Your task to perform on an android device: Go to location settings Image 0: 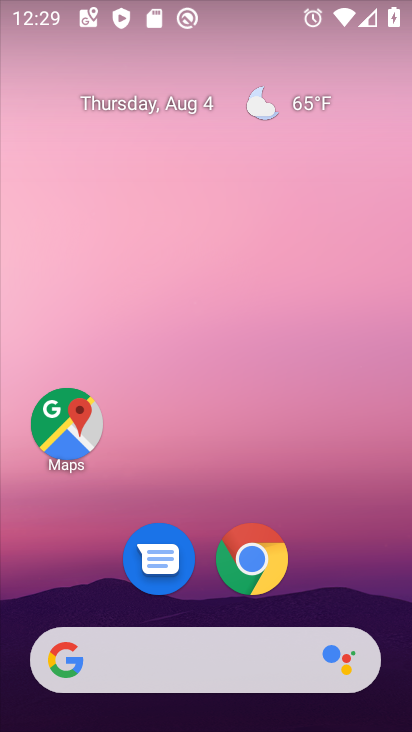
Step 0: drag from (206, 680) to (242, 166)
Your task to perform on an android device: Go to location settings Image 1: 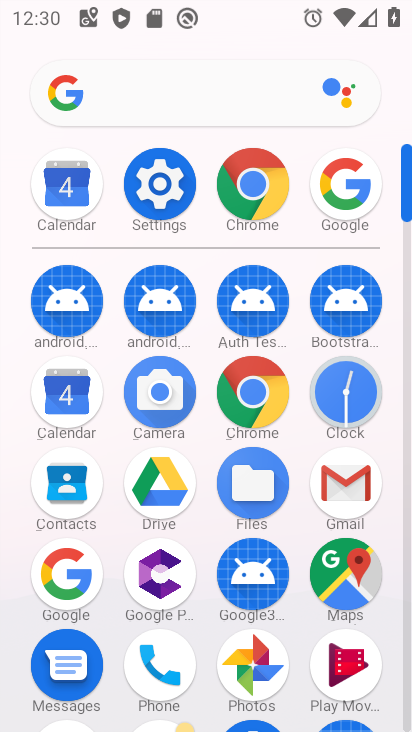
Step 1: click (159, 185)
Your task to perform on an android device: Go to location settings Image 2: 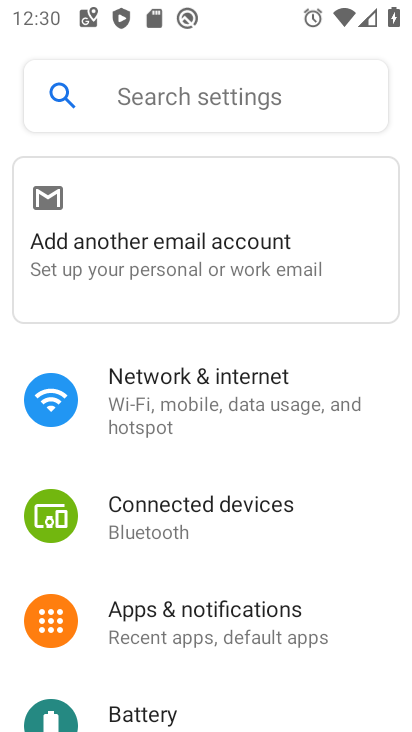
Step 2: drag from (146, 576) to (178, 430)
Your task to perform on an android device: Go to location settings Image 3: 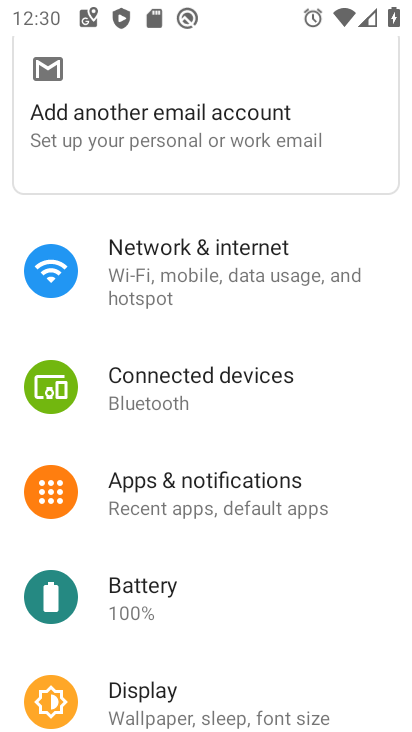
Step 3: drag from (112, 548) to (157, 443)
Your task to perform on an android device: Go to location settings Image 4: 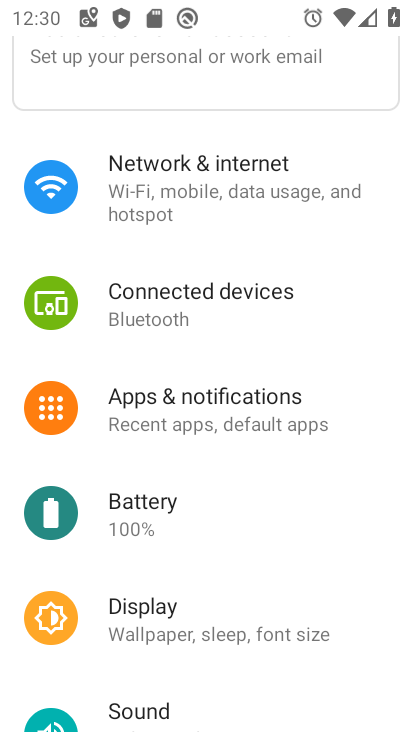
Step 4: drag from (144, 619) to (160, 522)
Your task to perform on an android device: Go to location settings Image 5: 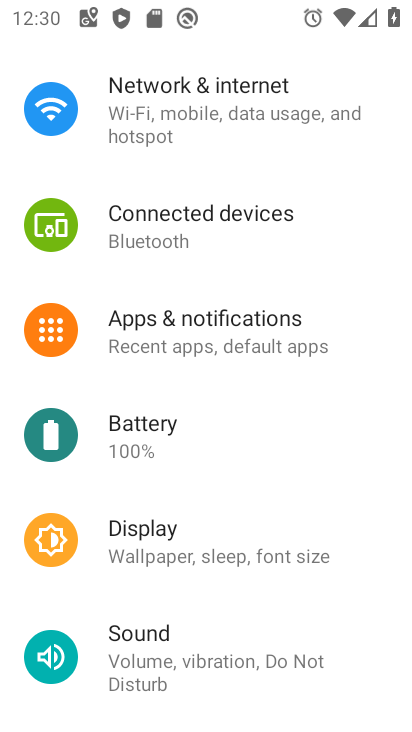
Step 5: drag from (139, 671) to (151, 529)
Your task to perform on an android device: Go to location settings Image 6: 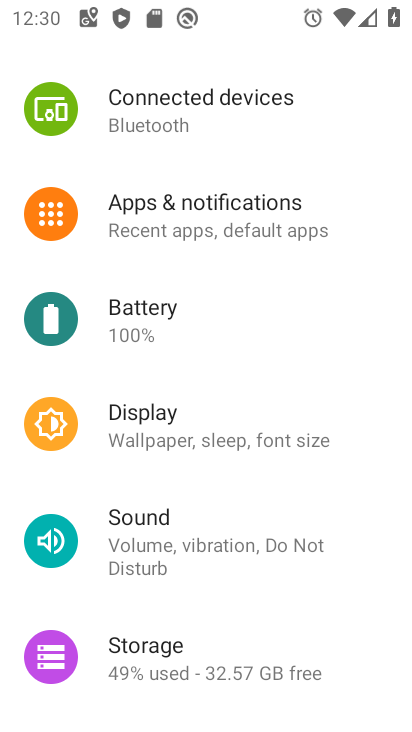
Step 6: drag from (128, 653) to (146, 522)
Your task to perform on an android device: Go to location settings Image 7: 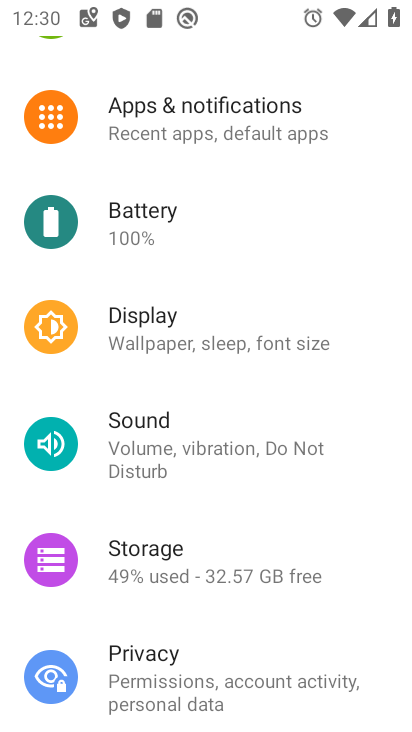
Step 7: drag from (151, 652) to (151, 373)
Your task to perform on an android device: Go to location settings Image 8: 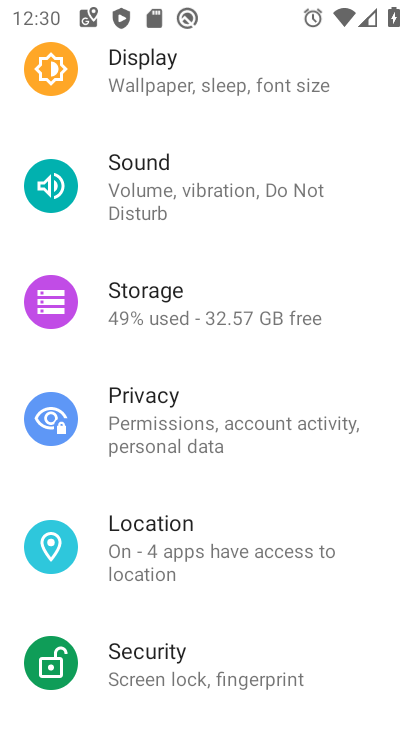
Step 8: click (156, 545)
Your task to perform on an android device: Go to location settings Image 9: 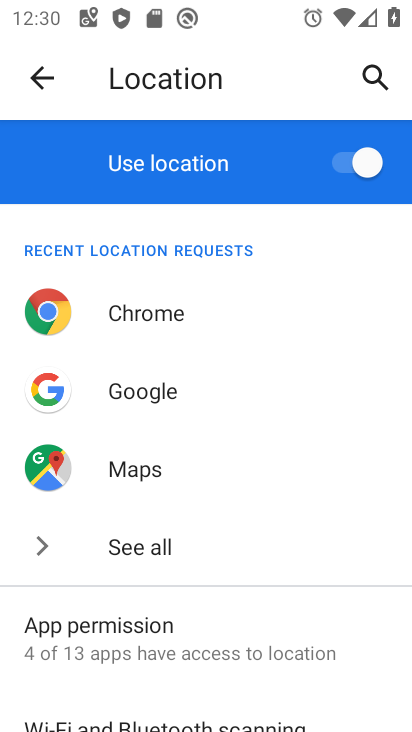
Step 9: task complete